Your task to perform on an android device: add a contact Image 0: 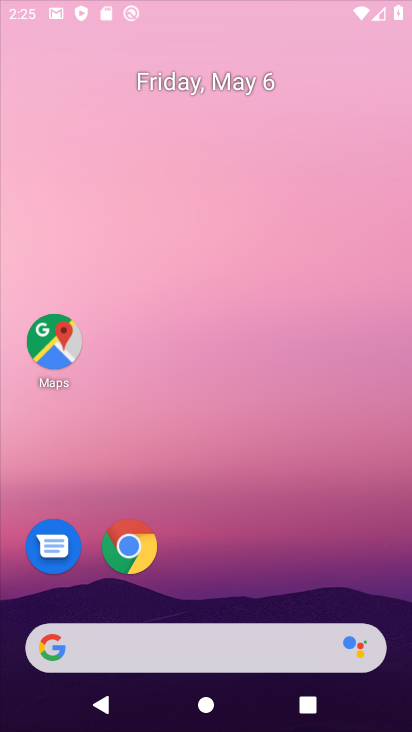
Step 0: drag from (204, 599) to (205, 125)
Your task to perform on an android device: add a contact Image 1: 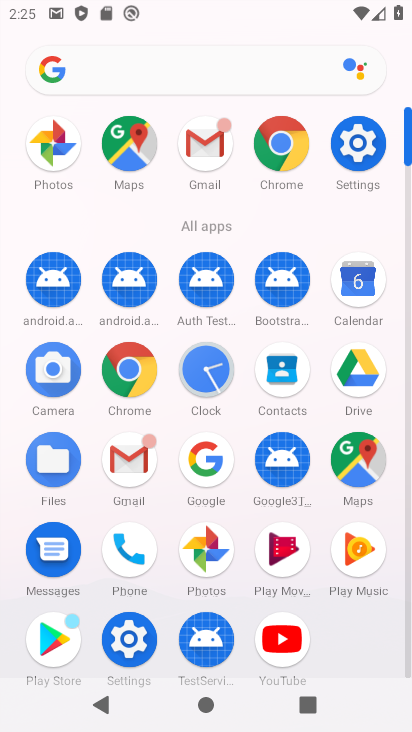
Step 1: click (281, 385)
Your task to perform on an android device: add a contact Image 2: 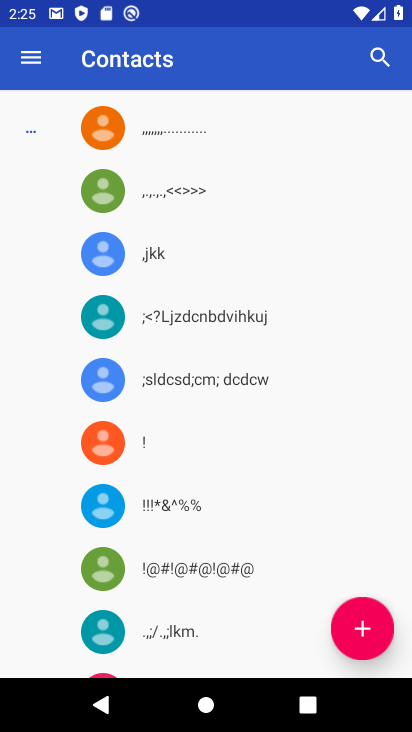
Step 2: click (368, 634)
Your task to perform on an android device: add a contact Image 3: 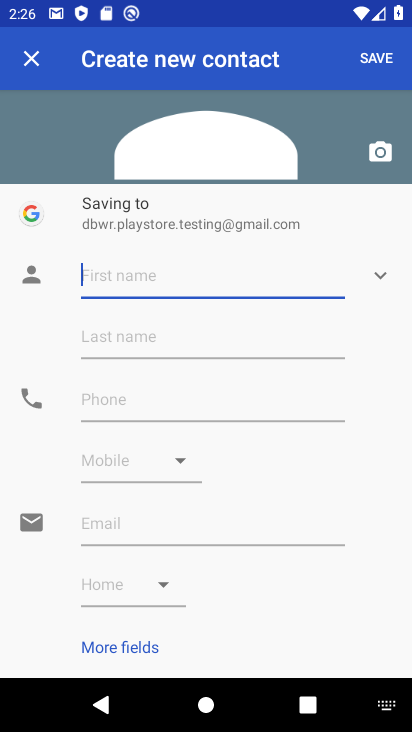
Step 3: type "dfhgfht"
Your task to perform on an android device: add a contact Image 4: 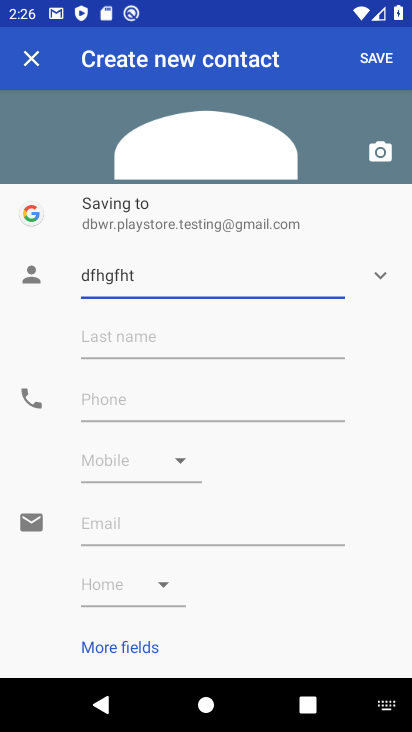
Step 4: click (162, 408)
Your task to perform on an android device: add a contact Image 5: 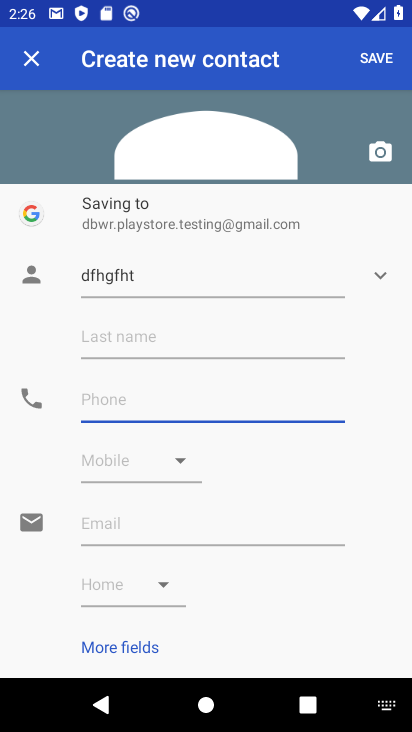
Step 5: type "3456755657"
Your task to perform on an android device: add a contact Image 6: 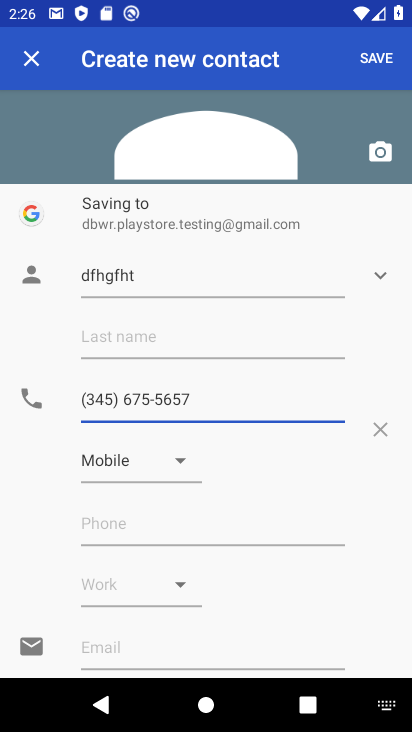
Step 6: click (385, 59)
Your task to perform on an android device: add a contact Image 7: 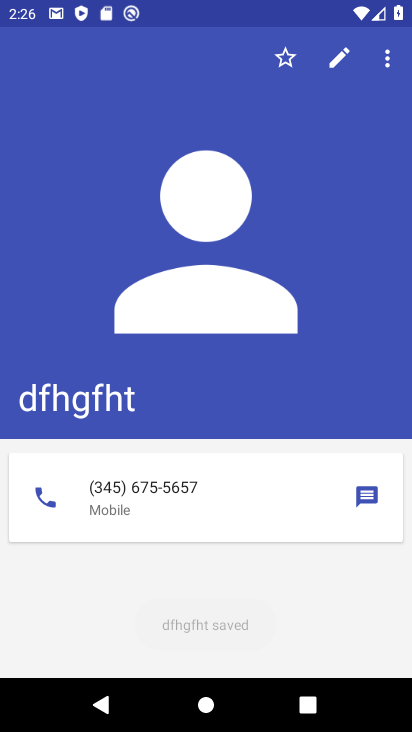
Step 7: task complete